Your task to perform on an android device: turn off location history Image 0: 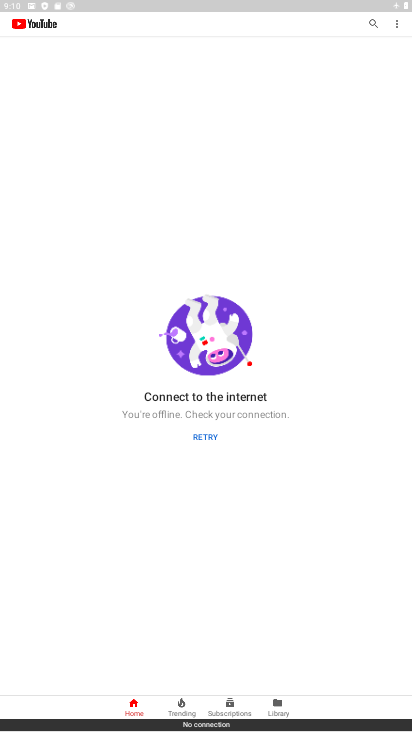
Step 0: press home button
Your task to perform on an android device: turn off location history Image 1: 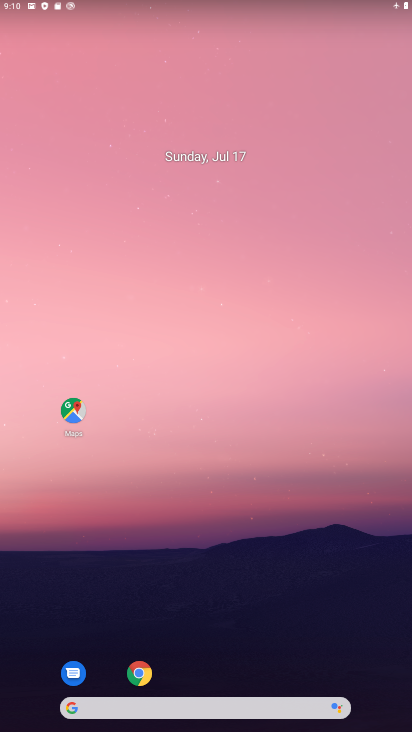
Step 1: click (73, 412)
Your task to perform on an android device: turn off location history Image 2: 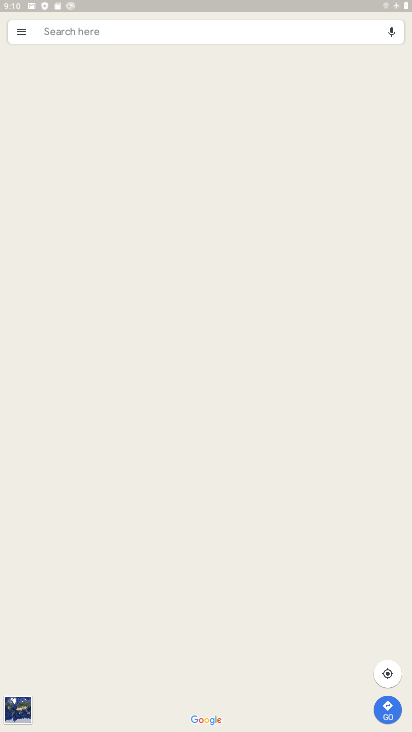
Step 2: click (15, 27)
Your task to perform on an android device: turn off location history Image 3: 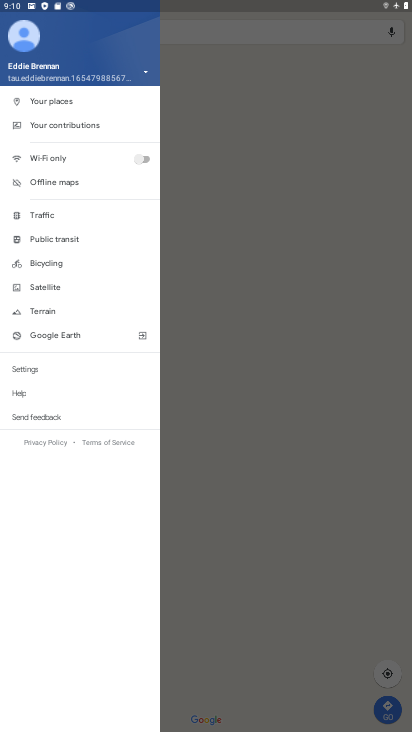
Step 3: click (29, 369)
Your task to perform on an android device: turn off location history Image 4: 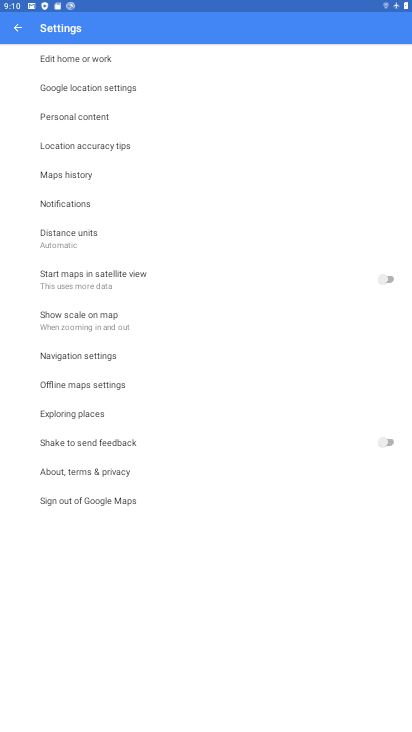
Step 4: click (72, 111)
Your task to perform on an android device: turn off location history Image 5: 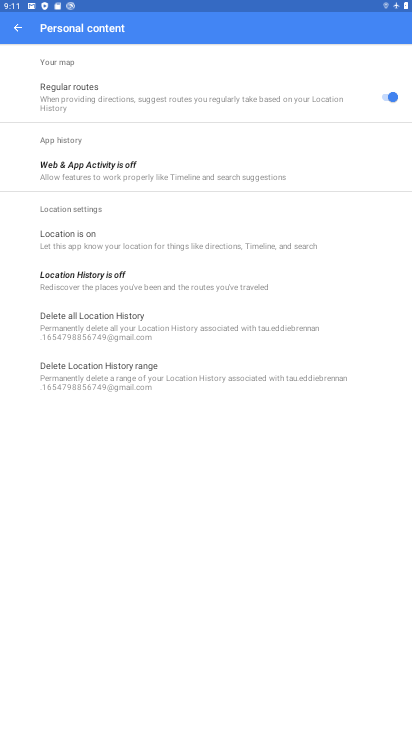
Step 5: task complete